Your task to perform on an android device: Open calendar and show me the fourth week of next month Image 0: 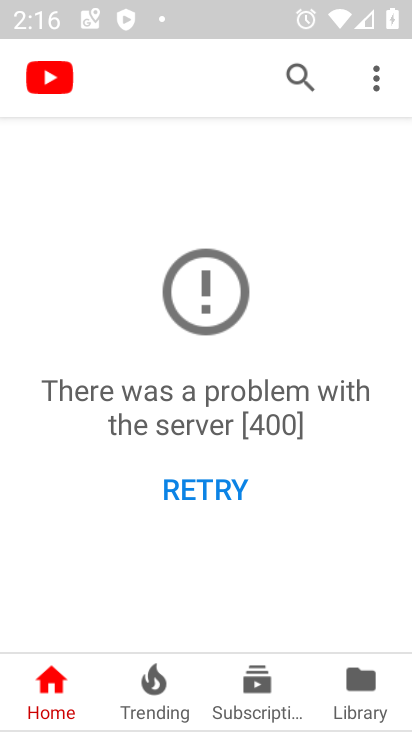
Step 0: press home button
Your task to perform on an android device: Open calendar and show me the fourth week of next month Image 1: 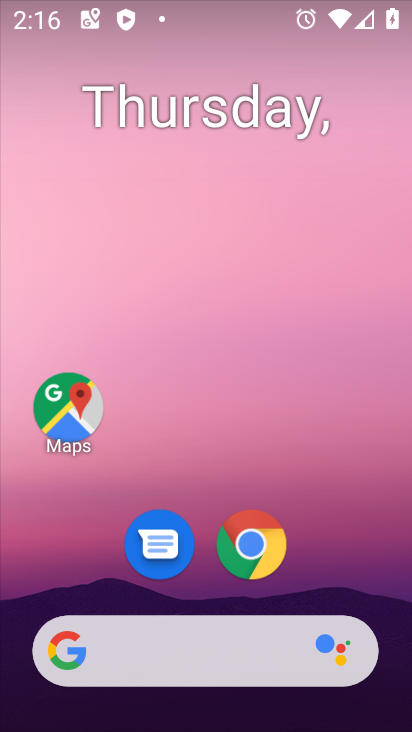
Step 1: drag from (338, 563) to (355, 242)
Your task to perform on an android device: Open calendar and show me the fourth week of next month Image 2: 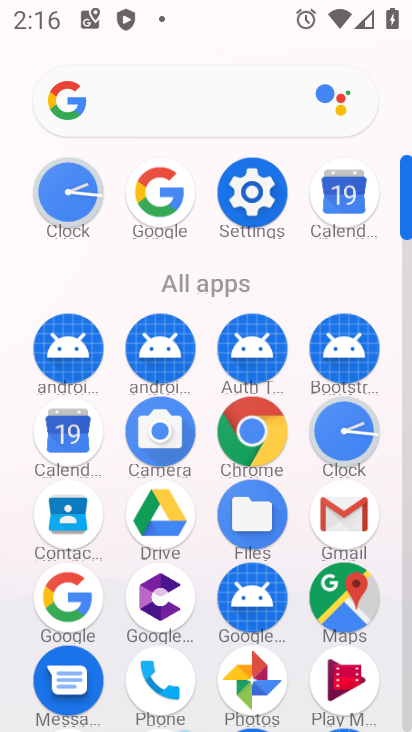
Step 2: click (90, 414)
Your task to perform on an android device: Open calendar and show me the fourth week of next month Image 3: 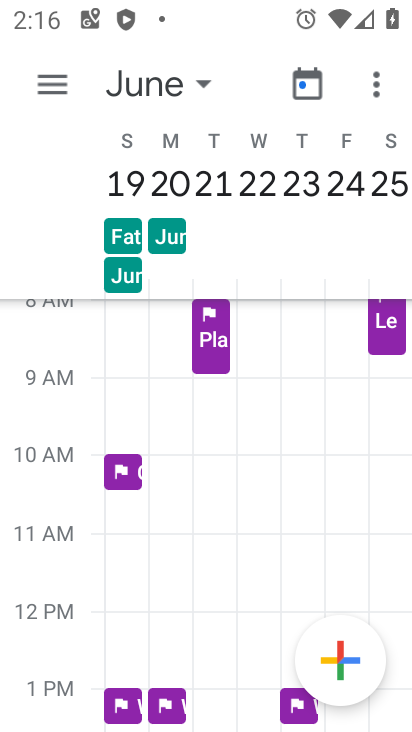
Step 3: task complete